Your task to perform on an android device: allow cookies in the chrome app Image 0: 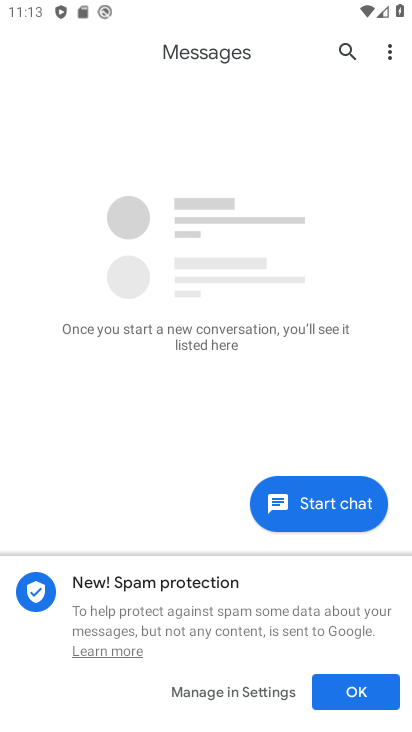
Step 0: press home button
Your task to perform on an android device: allow cookies in the chrome app Image 1: 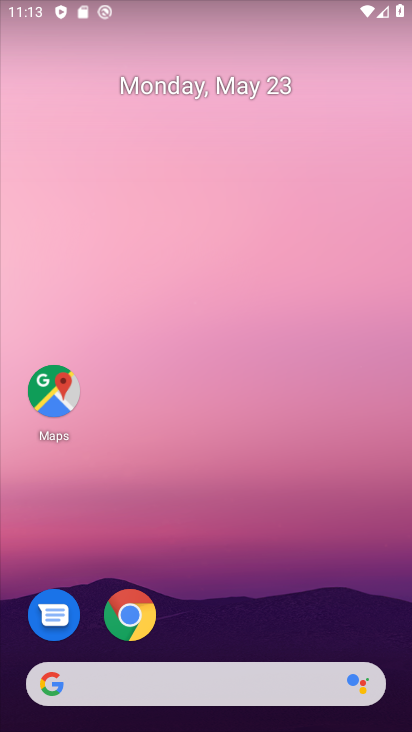
Step 1: click (139, 621)
Your task to perform on an android device: allow cookies in the chrome app Image 2: 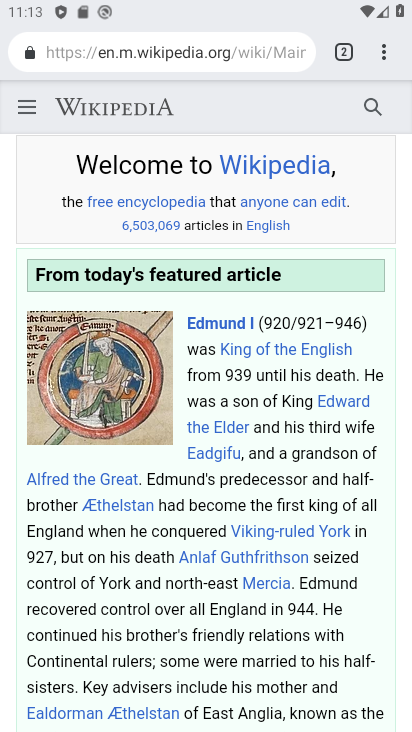
Step 2: click (393, 62)
Your task to perform on an android device: allow cookies in the chrome app Image 3: 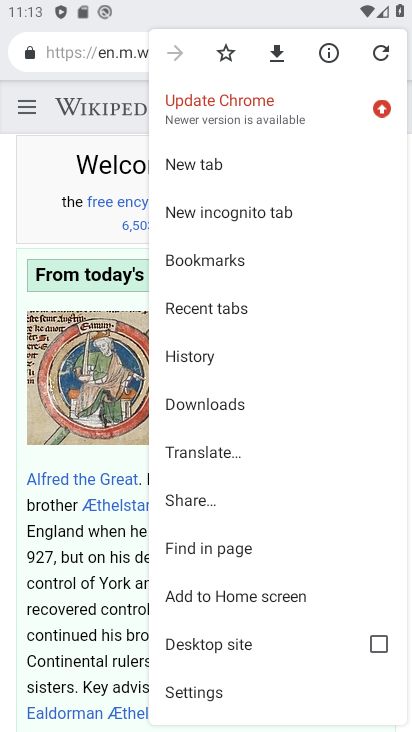
Step 3: click (237, 697)
Your task to perform on an android device: allow cookies in the chrome app Image 4: 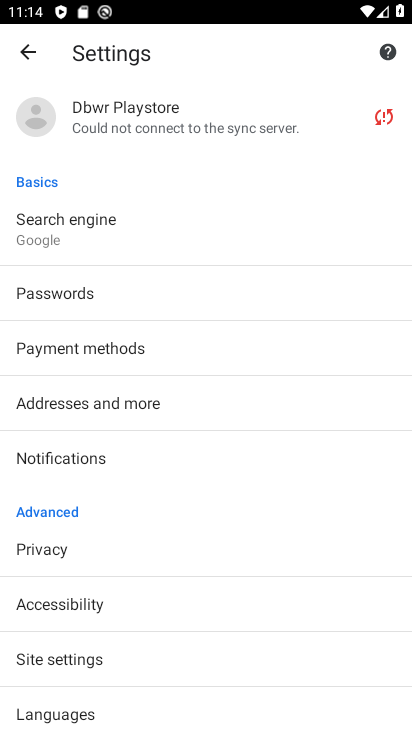
Step 4: click (99, 640)
Your task to perform on an android device: allow cookies in the chrome app Image 5: 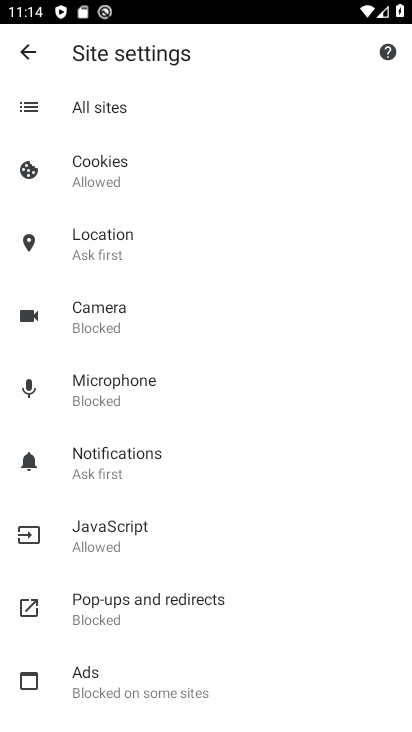
Step 5: click (114, 177)
Your task to perform on an android device: allow cookies in the chrome app Image 6: 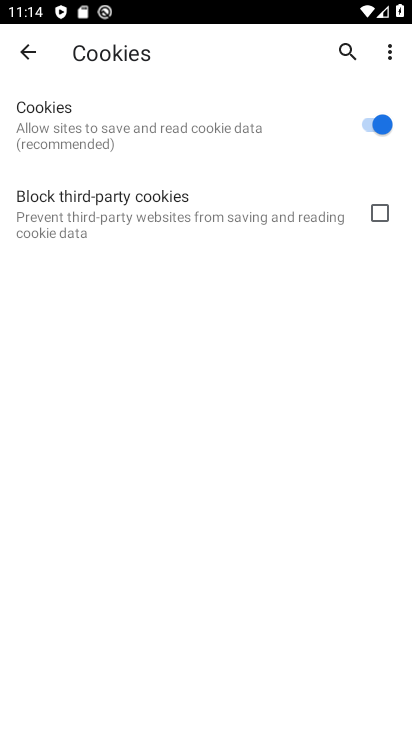
Step 6: task complete